Your task to perform on an android device: Show me popular games on the Play Store Image 0: 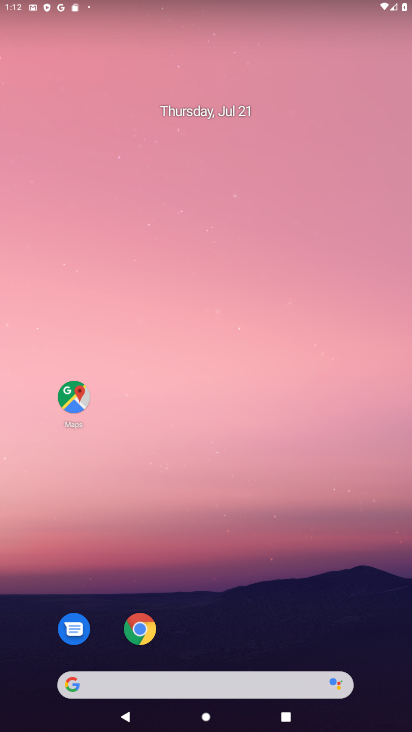
Step 0: drag from (181, 638) to (192, 66)
Your task to perform on an android device: Show me popular games on the Play Store Image 1: 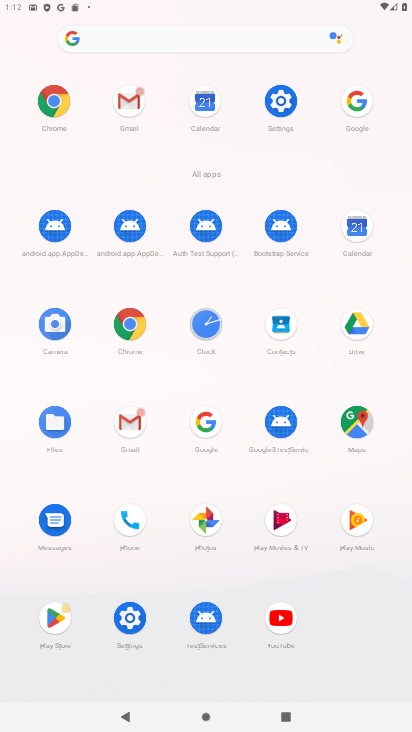
Step 1: click (52, 613)
Your task to perform on an android device: Show me popular games on the Play Store Image 2: 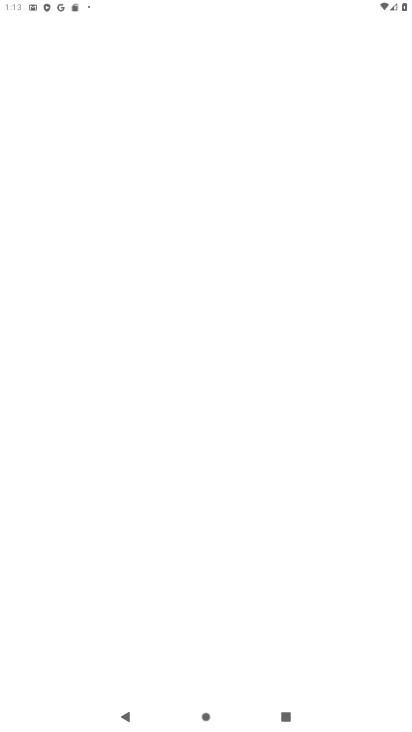
Step 2: press home button
Your task to perform on an android device: Show me popular games on the Play Store Image 3: 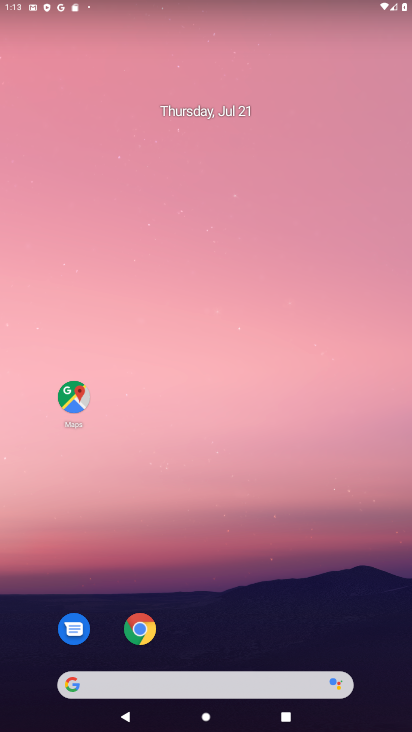
Step 3: drag from (233, 634) to (255, 65)
Your task to perform on an android device: Show me popular games on the Play Store Image 4: 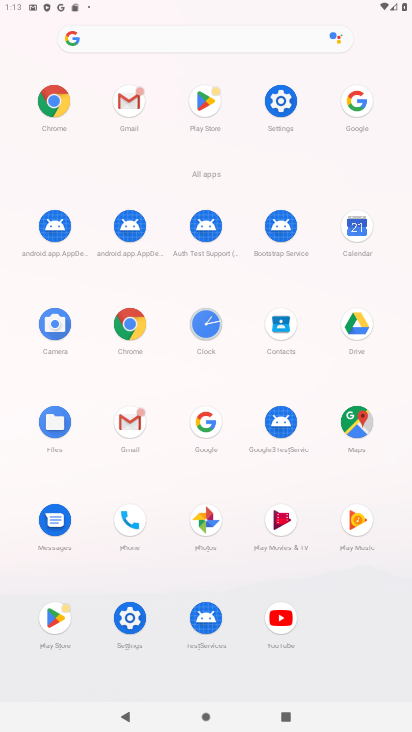
Step 4: click (57, 616)
Your task to perform on an android device: Show me popular games on the Play Store Image 5: 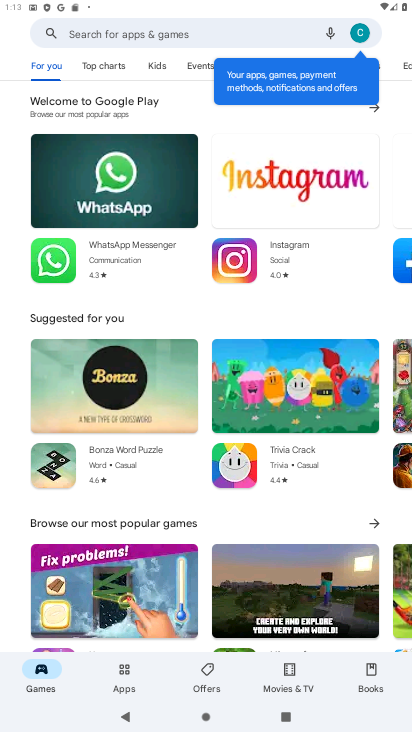
Step 5: click (248, 527)
Your task to perform on an android device: Show me popular games on the Play Store Image 6: 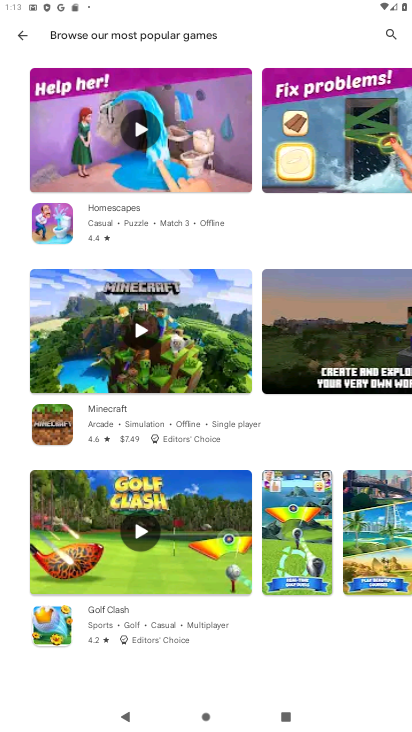
Step 6: task complete